Your task to perform on an android device: Show me popular videos on Youtube Image 0: 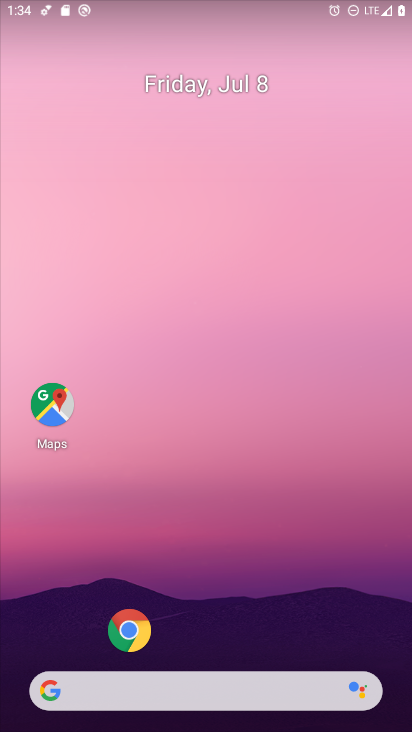
Step 0: drag from (370, 687) to (327, 5)
Your task to perform on an android device: Show me popular videos on Youtube Image 1: 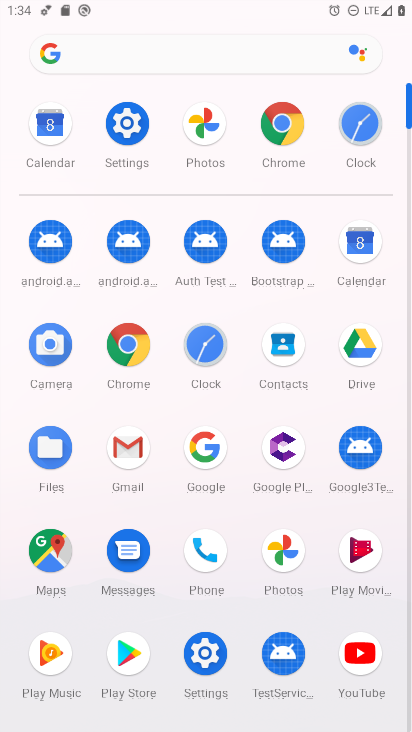
Step 1: click (357, 657)
Your task to perform on an android device: Show me popular videos on Youtube Image 2: 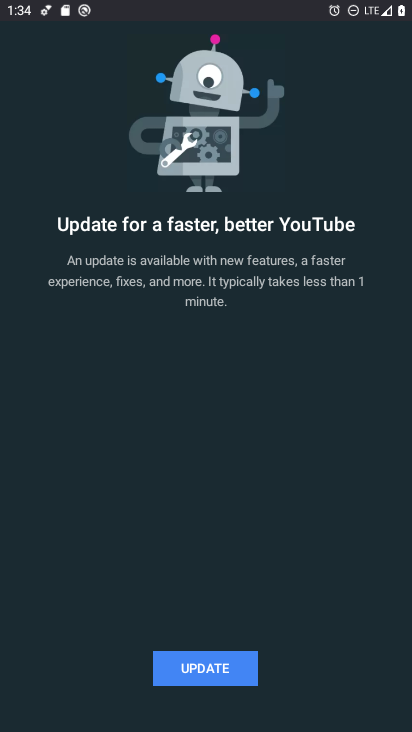
Step 2: click (181, 661)
Your task to perform on an android device: Show me popular videos on Youtube Image 3: 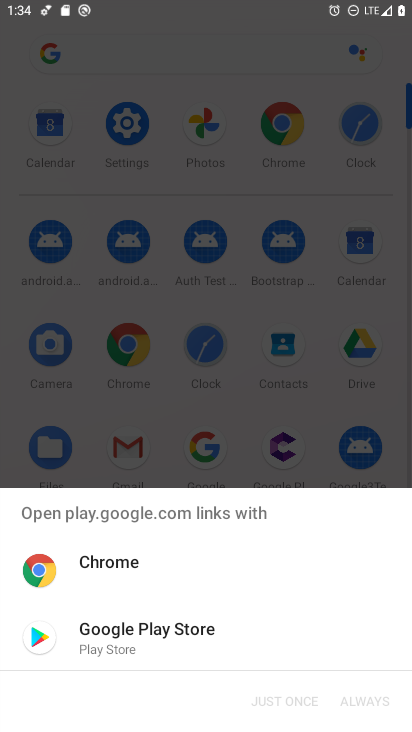
Step 3: drag from (170, 620) to (215, 620)
Your task to perform on an android device: Show me popular videos on Youtube Image 4: 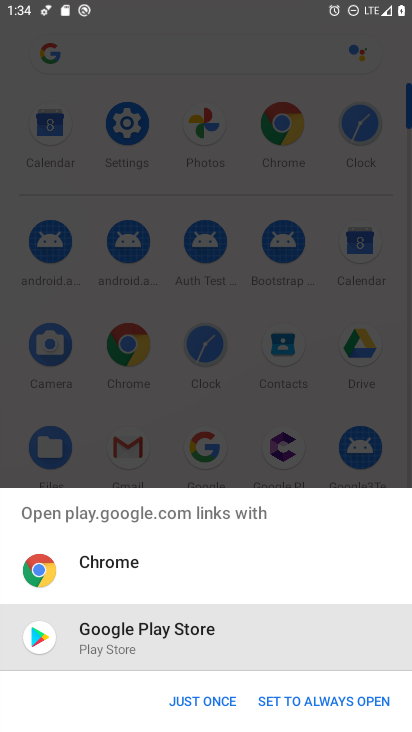
Step 4: click (208, 700)
Your task to perform on an android device: Show me popular videos on Youtube Image 5: 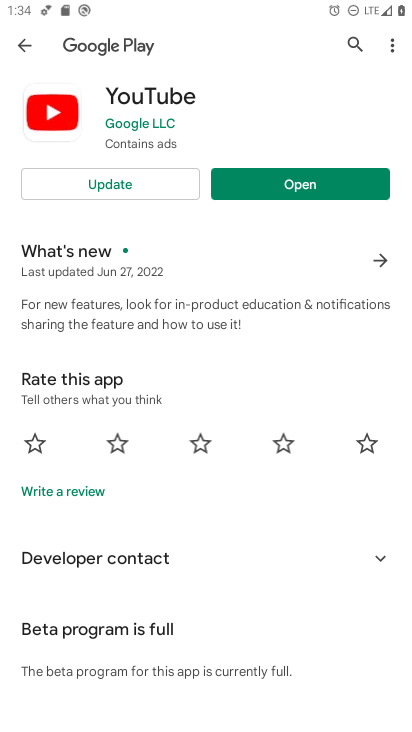
Step 5: click (164, 180)
Your task to perform on an android device: Show me popular videos on Youtube Image 6: 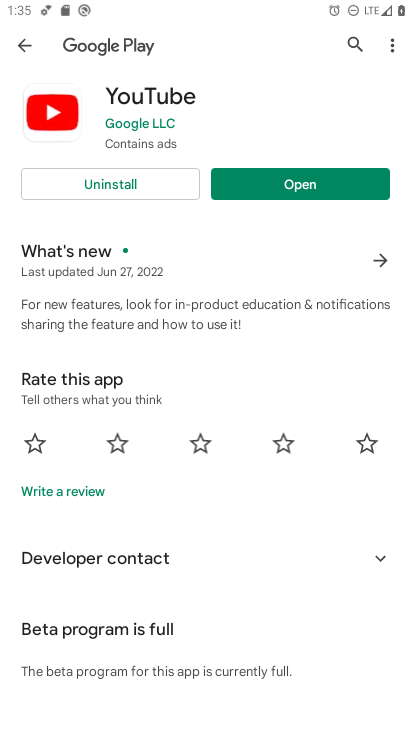
Step 6: click (368, 178)
Your task to perform on an android device: Show me popular videos on Youtube Image 7: 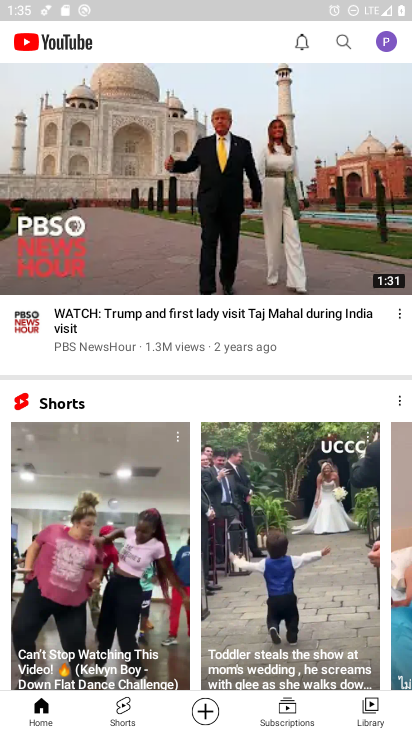
Step 7: task complete